Your task to perform on an android device: Go to privacy settings Image 0: 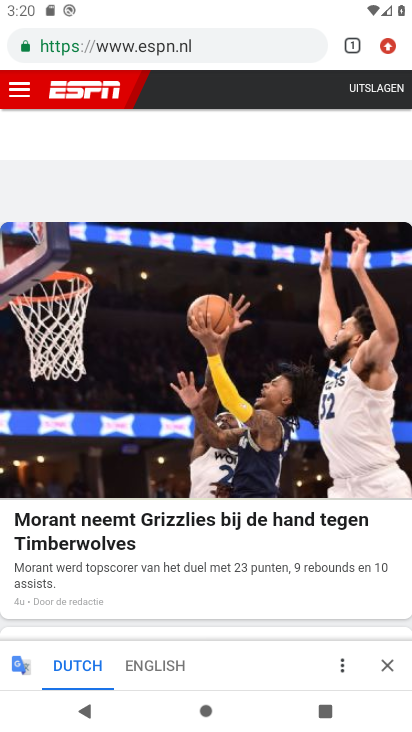
Step 0: press home button
Your task to perform on an android device: Go to privacy settings Image 1: 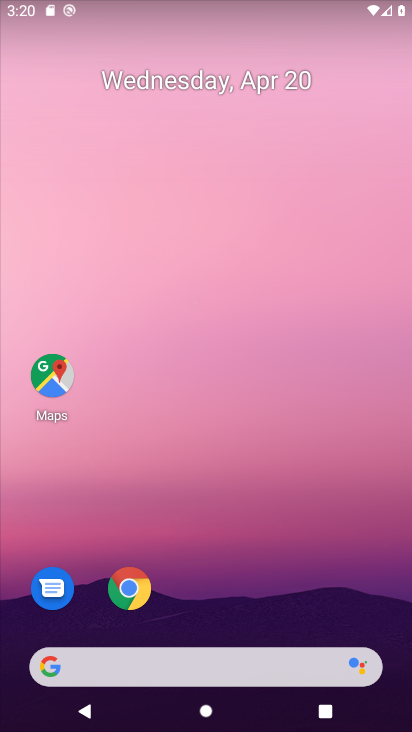
Step 1: click (124, 586)
Your task to perform on an android device: Go to privacy settings Image 2: 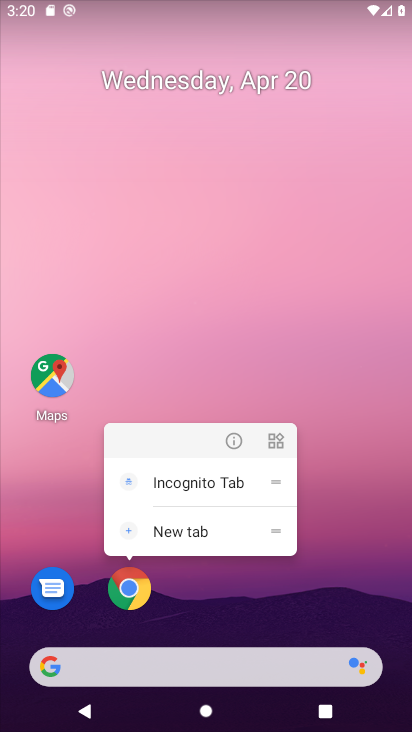
Step 2: click (124, 586)
Your task to perform on an android device: Go to privacy settings Image 3: 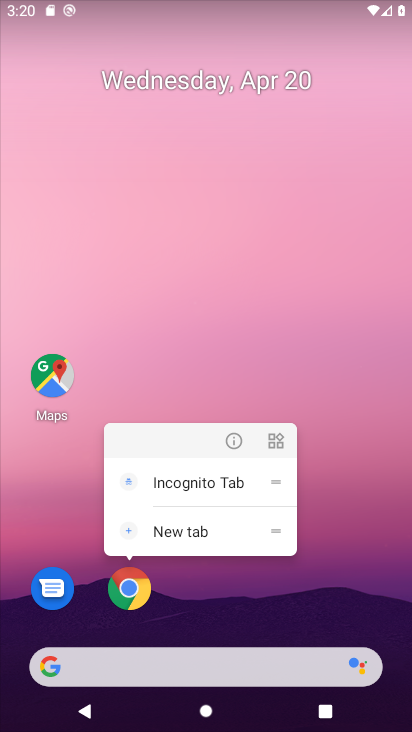
Step 3: click (127, 587)
Your task to perform on an android device: Go to privacy settings Image 4: 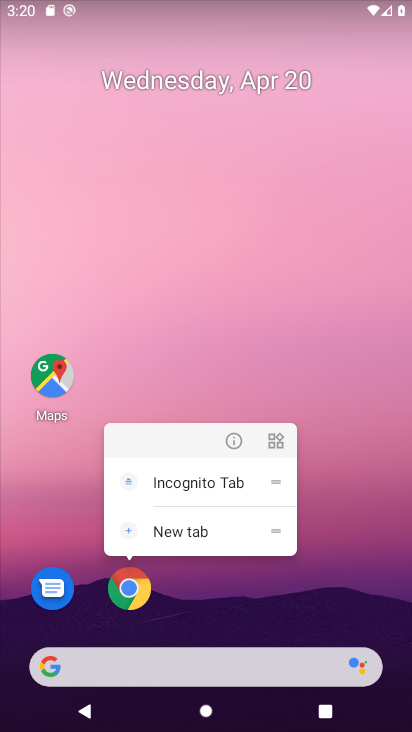
Step 4: click (126, 587)
Your task to perform on an android device: Go to privacy settings Image 5: 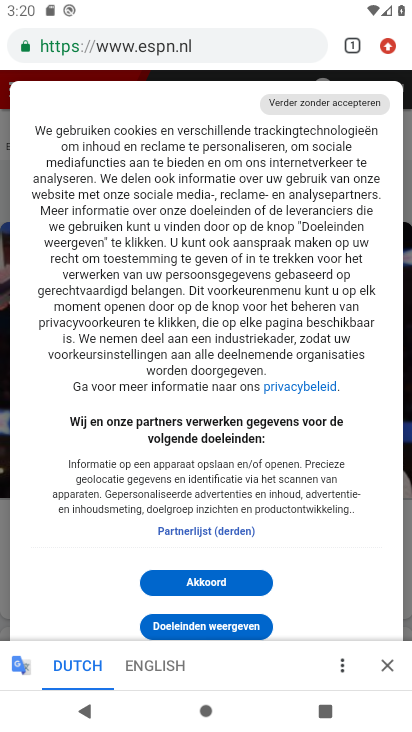
Step 5: click (388, 49)
Your task to perform on an android device: Go to privacy settings Image 6: 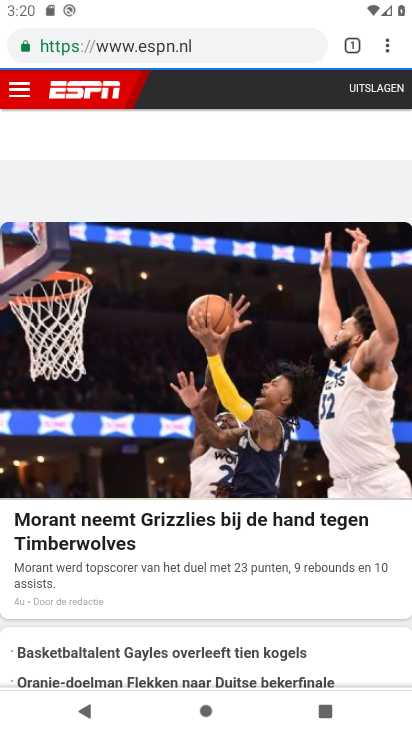
Step 6: click (387, 49)
Your task to perform on an android device: Go to privacy settings Image 7: 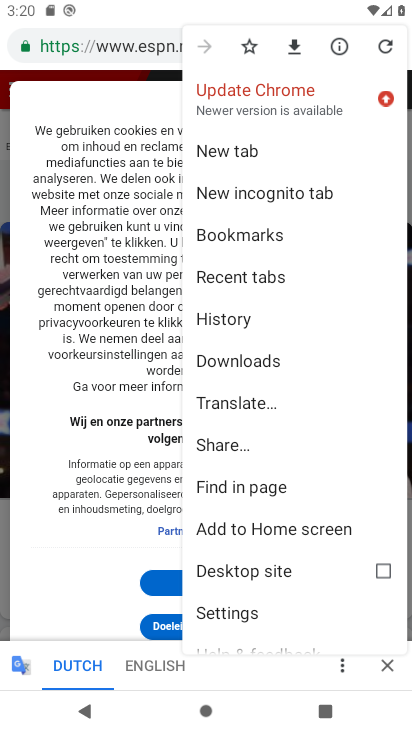
Step 7: click (260, 607)
Your task to perform on an android device: Go to privacy settings Image 8: 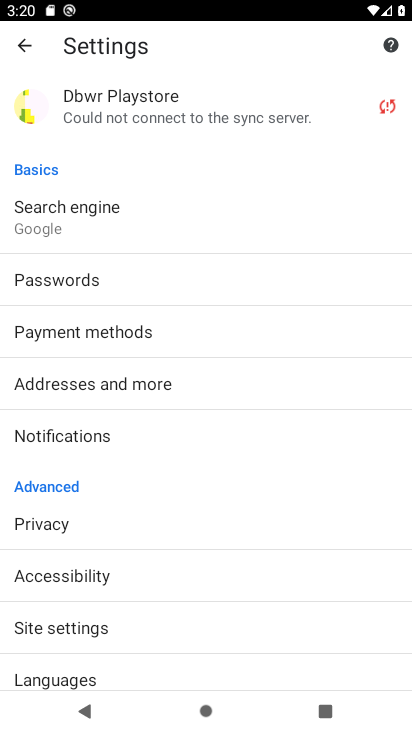
Step 8: click (50, 528)
Your task to perform on an android device: Go to privacy settings Image 9: 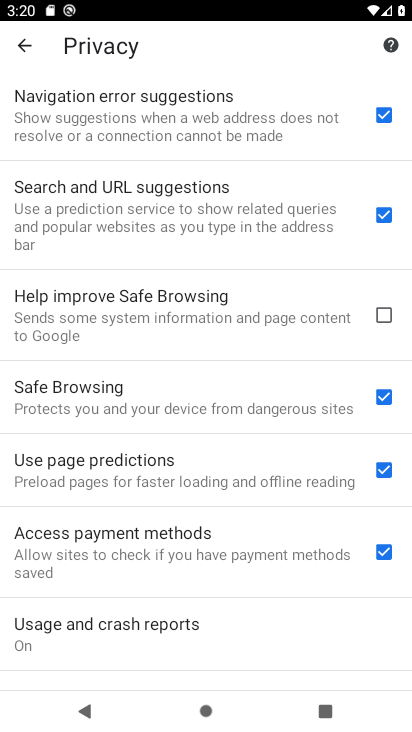
Step 9: task complete